Your task to perform on an android device: add a contact in the contacts app Image 0: 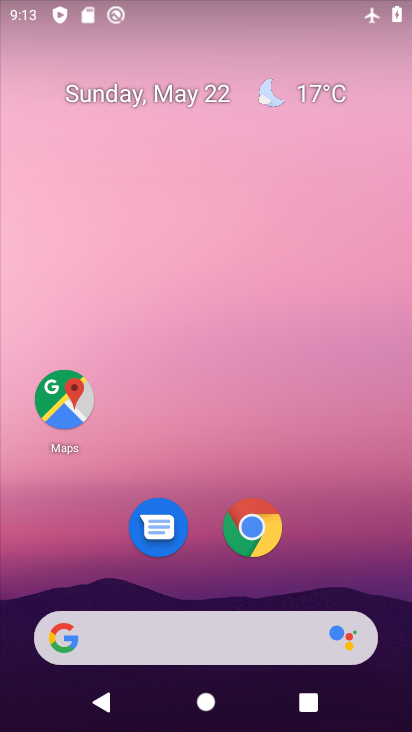
Step 0: drag from (357, 559) to (240, 161)
Your task to perform on an android device: add a contact in the contacts app Image 1: 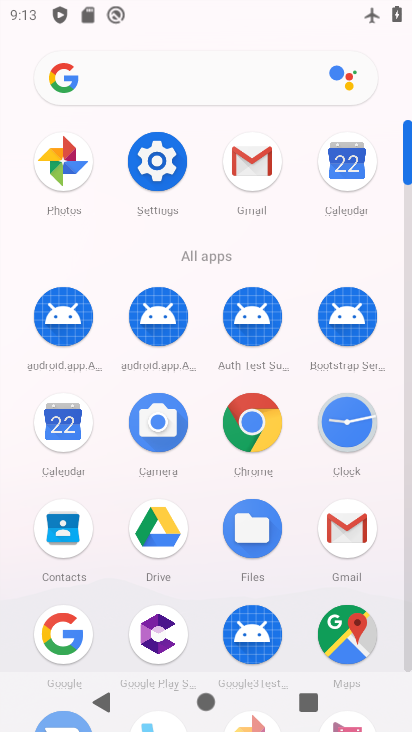
Step 1: click (59, 523)
Your task to perform on an android device: add a contact in the contacts app Image 2: 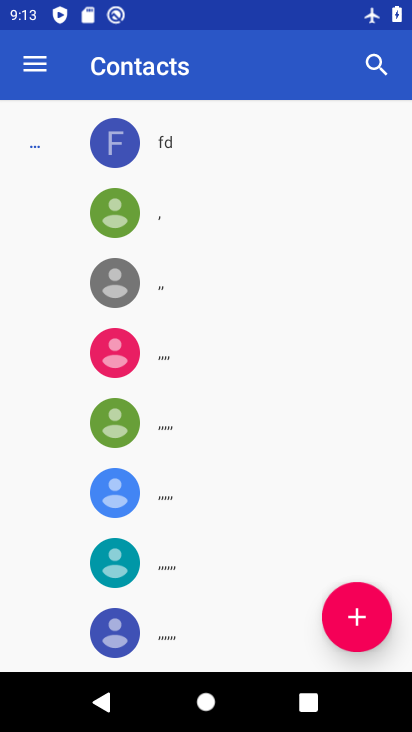
Step 2: click (354, 617)
Your task to perform on an android device: add a contact in the contacts app Image 3: 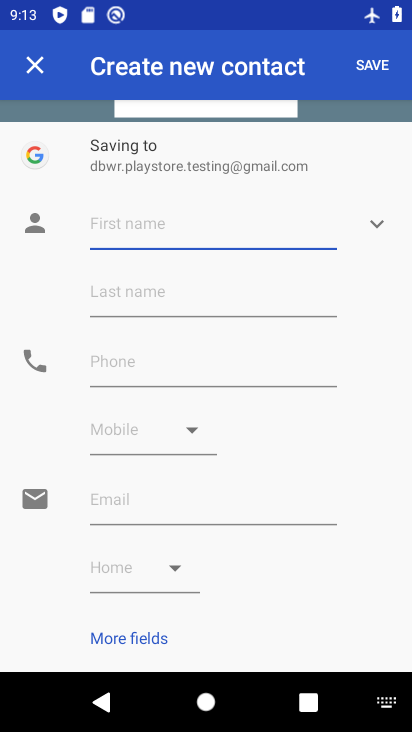
Step 3: type "fdsa"
Your task to perform on an android device: add a contact in the contacts app Image 4: 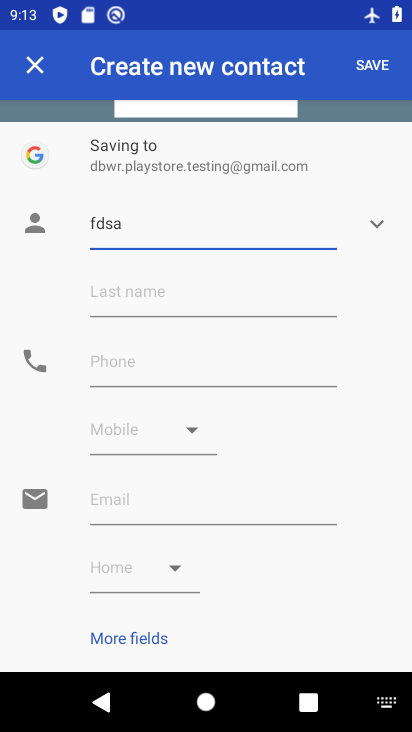
Step 4: click (113, 350)
Your task to perform on an android device: add a contact in the contacts app Image 5: 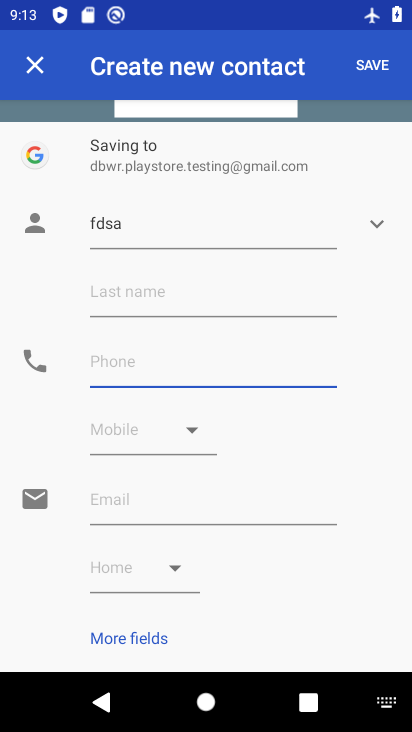
Step 5: type "4444444444444444444"
Your task to perform on an android device: add a contact in the contacts app Image 6: 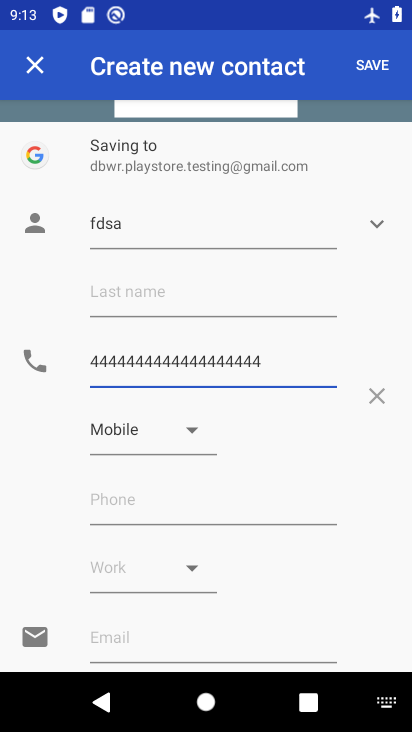
Step 6: click (367, 56)
Your task to perform on an android device: add a contact in the contacts app Image 7: 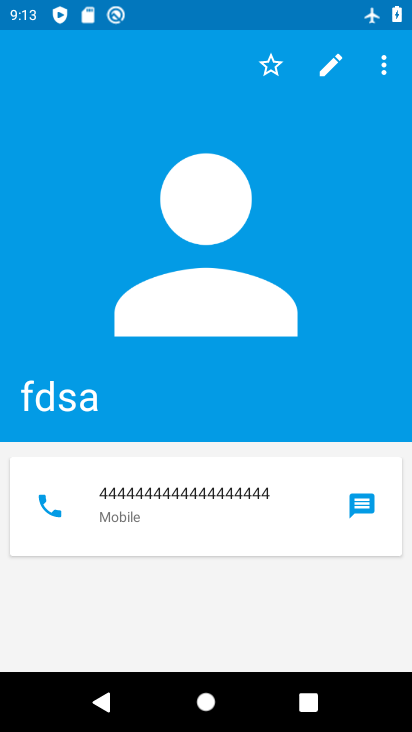
Step 7: task complete